Your task to perform on an android device: see tabs open on other devices in the chrome app Image 0: 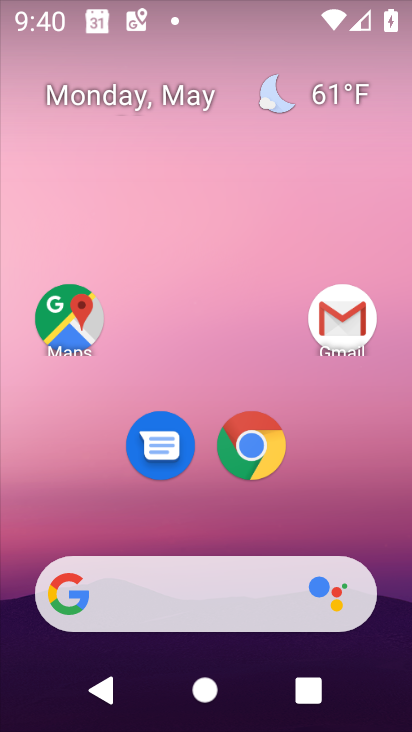
Step 0: drag from (362, 511) to (349, 137)
Your task to perform on an android device: see tabs open on other devices in the chrome app Image 1: 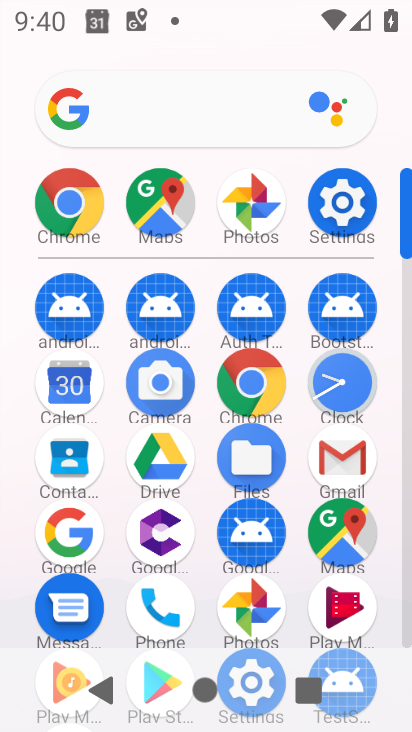
Step 1: click (270, 380)
Your task to perform on an android device: see tabs open on other devices in the chrome app Image 2: 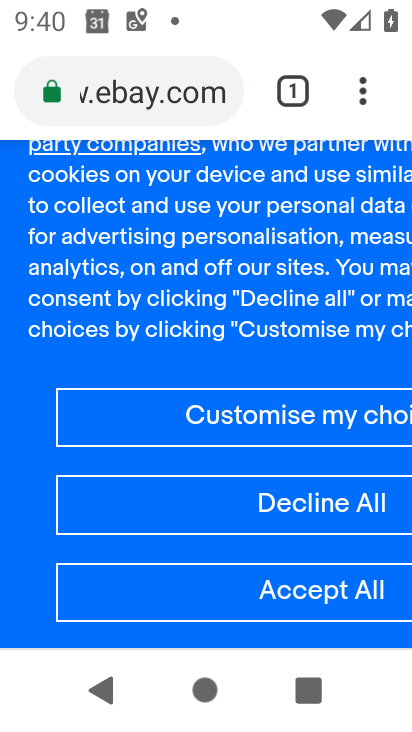
Step 2: click (365, 94)
Your task to perform on an android device: see tabs open on other devices in the chrome app Image 3: 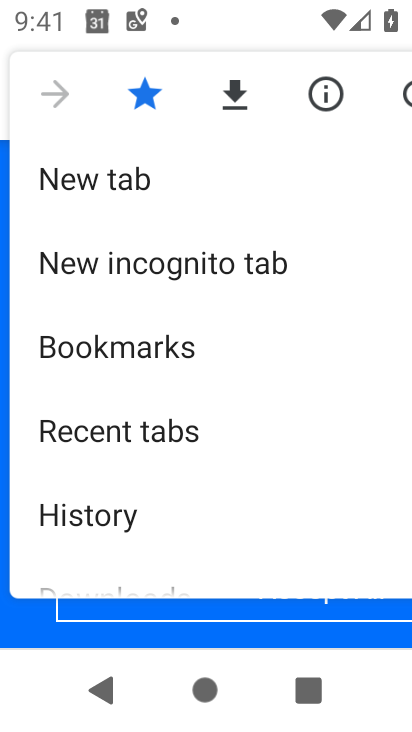
Step 3: drag from (301, 473) to (327, 276)
Your task to perform on an android device: see tabs open on other devices in the chrome app Image 4: 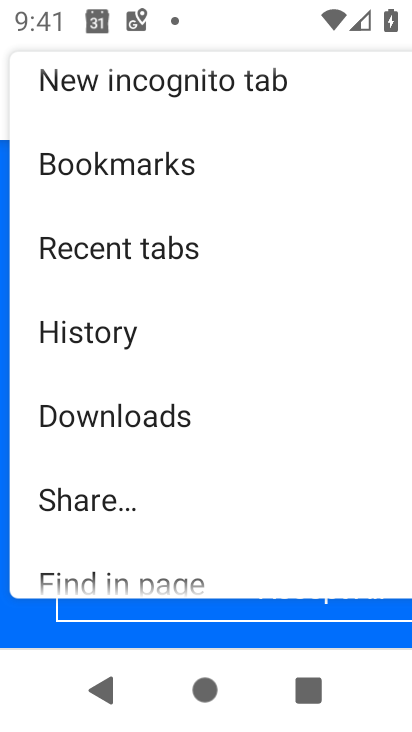
Step 4: drag from (311, 471) to (316, 319)
Your task to perform on an android device: see tabs open on other devices in the chrome app Image 5: 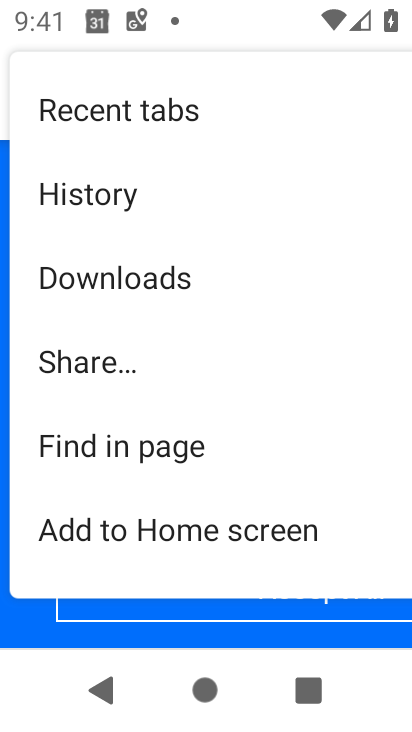
Step 5: click (195, 109)
Your task to perform on an android device: see tabs open on other devices in the chrome app Image 6: 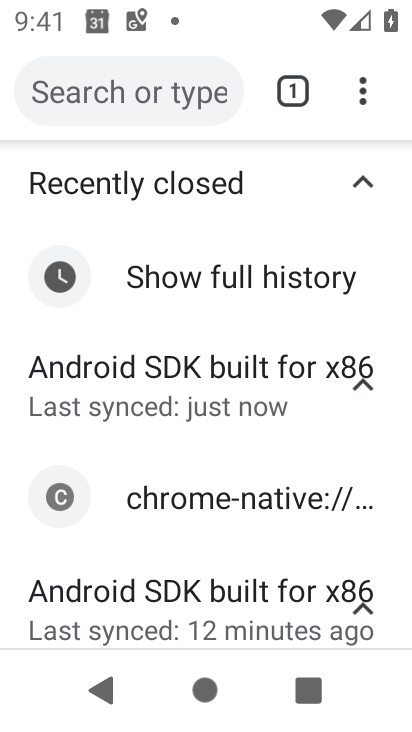
Step 6: click (296, 95)
Your task to perform on an android device: see tabs open on other devices in the chrome app Image 7: 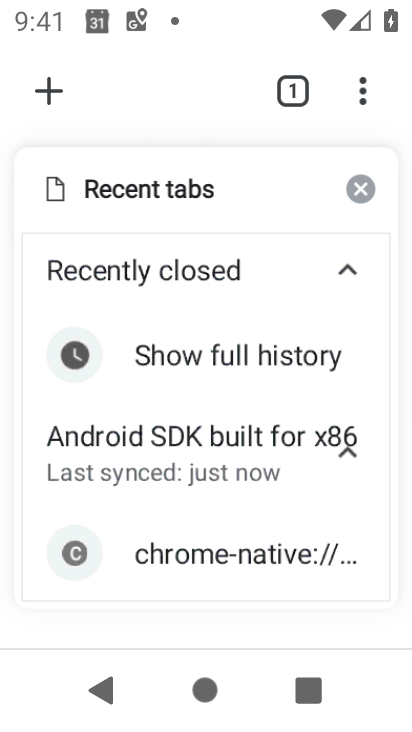
Step 7: task complete